Your task to perform on an android device: Go to calendar. Show me events next week Image 0: 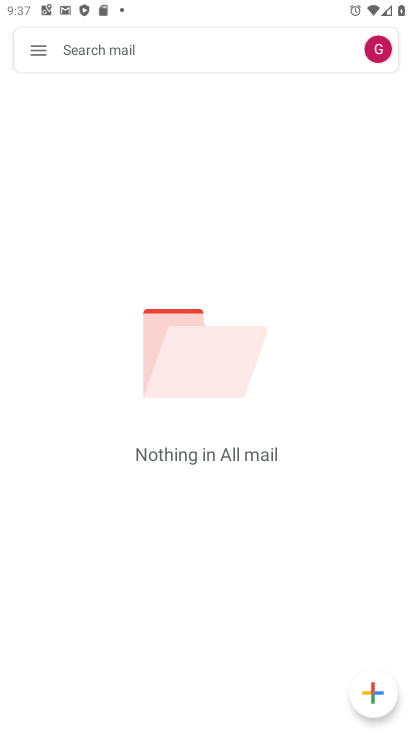
Step 0: press home button
Your task to perform on an android device: Go to calendar. Show me events next week Image 1: 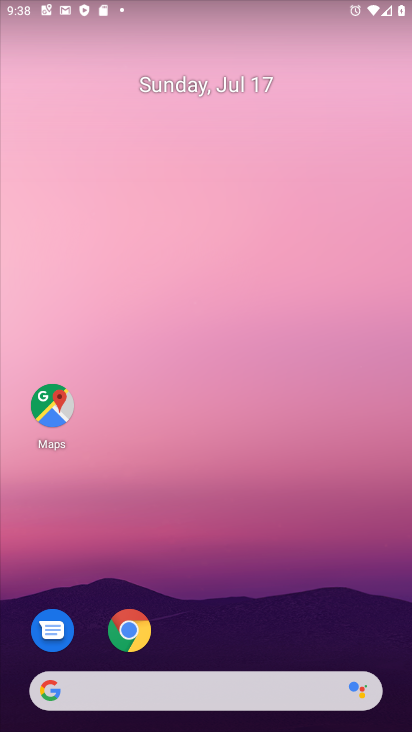
Step 1: drag from (333, 631) to (319, 77)
Your task to perform on an android device: Go to calendar. Show me events next week Image 2: 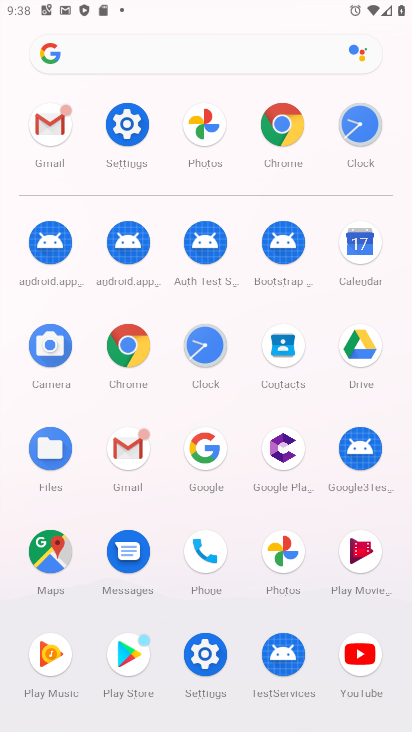
Step 2: click (357, 248)
Your task to perform on an android device: Go to calendar. Show me events next week Image 3: 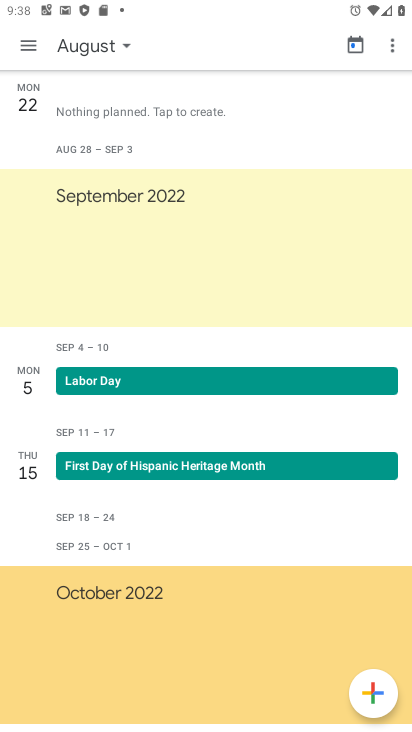
Step 3: drag from (213, 137) to (248, 439)
Your task to perform on an android device: Go to calendar. Show me events next week Image 4: 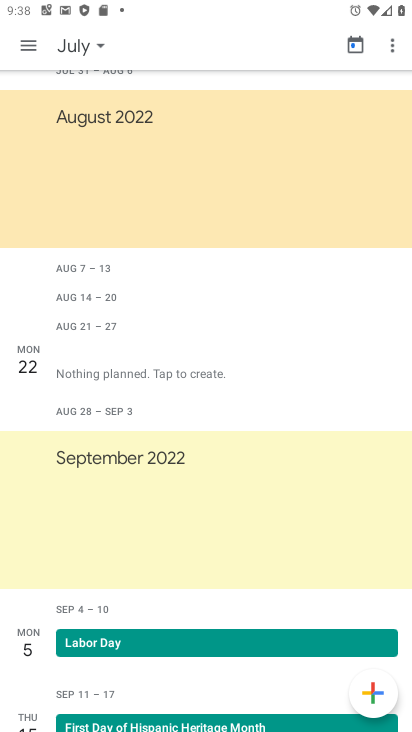
Step 4: drag from (207, 115) to (231, 388)
Your task to perform on an android device: Go to calendar. Show me events next week Image 5: 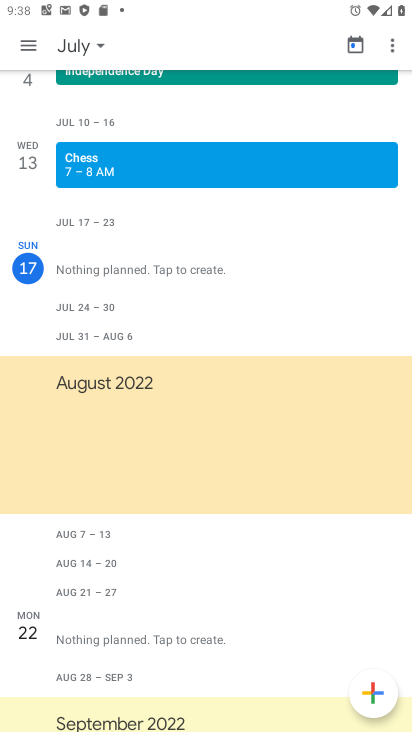
Step 5: click (98, 40)
Your task to perform on an android device: Go to calendar. Show me events next week Image 6: 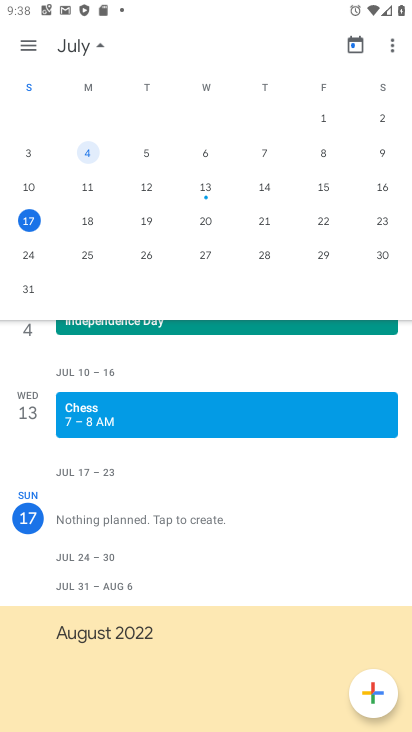
Step 6: click (84, 253)
Your task to perform on an android device: Go to calendar. Show me events next week Image 7: 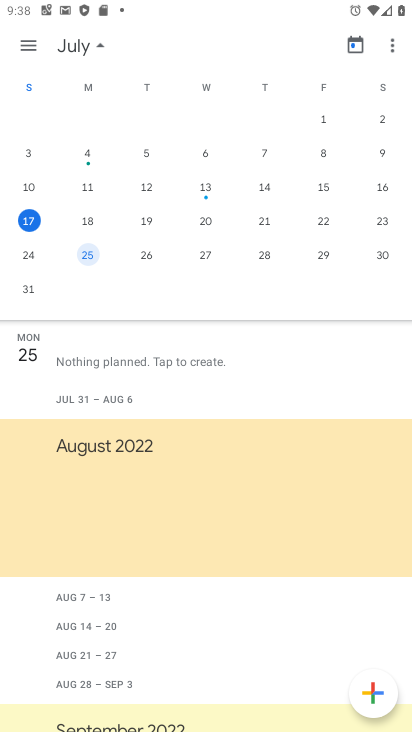
Step 7: task complete